Your task to perform on an android device: see sites visited before in the chrome app Image 0: 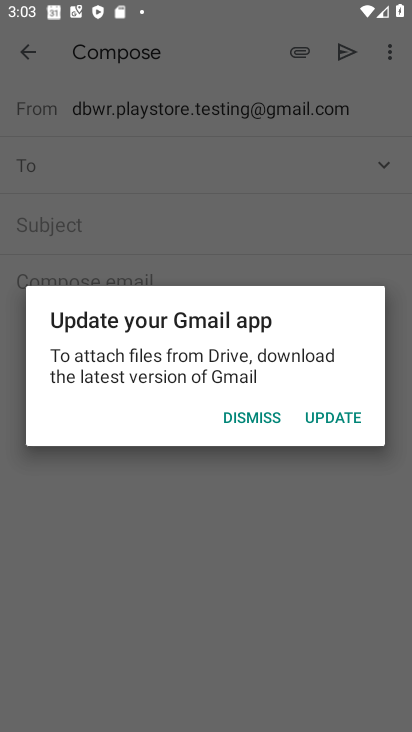
Step 0: press home button
Your task to perform on an android device: see sites visited before in the chrome app Image 1: 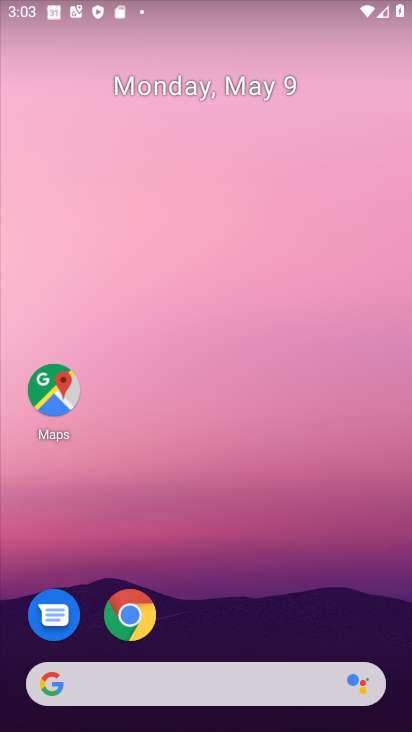
Step 1: drag from (208, 492) to (229, 184)
Your task to perform on an android device: see sites visited before in the chrome app Image 2: 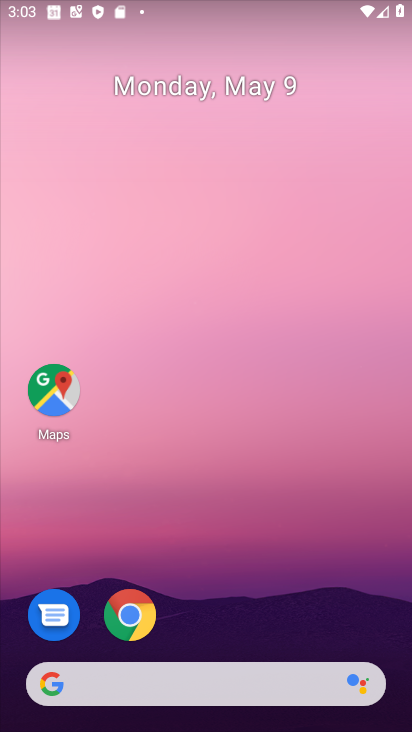
Step 2: drag from (226, 626) to (250, 230)
Your task to perform on an android device: see sites visited before in the chrome app Image 3: 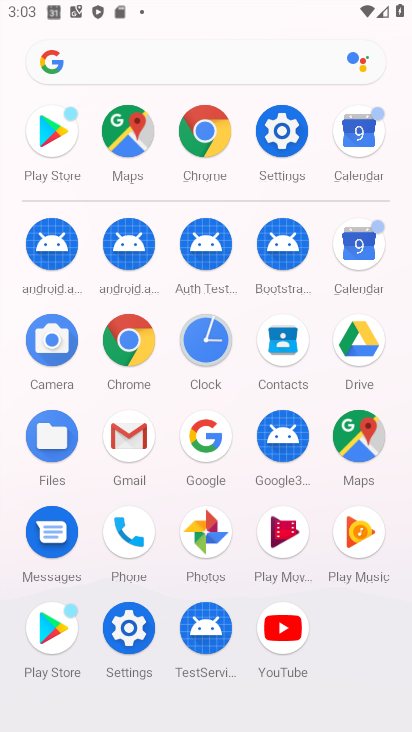
Step 3: click (211, 133)
Your task to perform on an android device: see sites visited before in the chrome app Image 4: 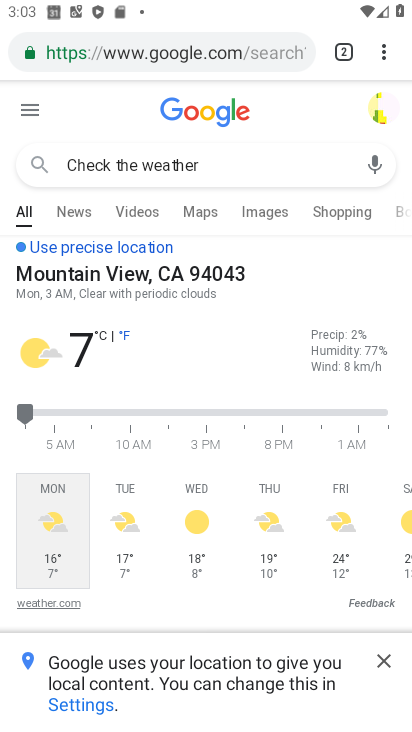
Step 4: click (375, 48)
Your task to perform on an android device: see sites visited before in the chrome app Image 5: 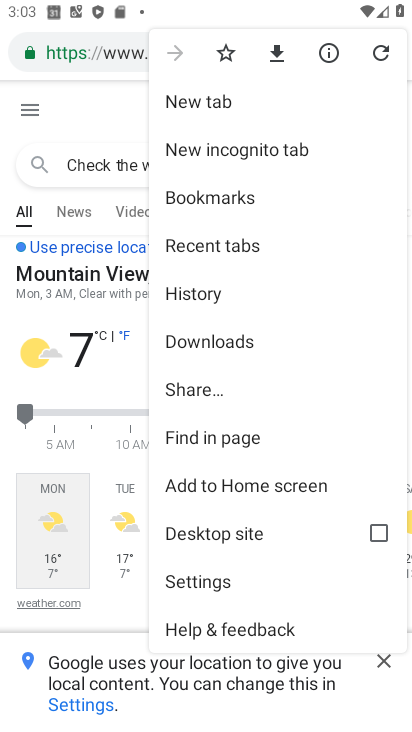
Step 5: click (189, 287)
Your task to perform on an android device: see sites visited before in the chrome app Image 6: 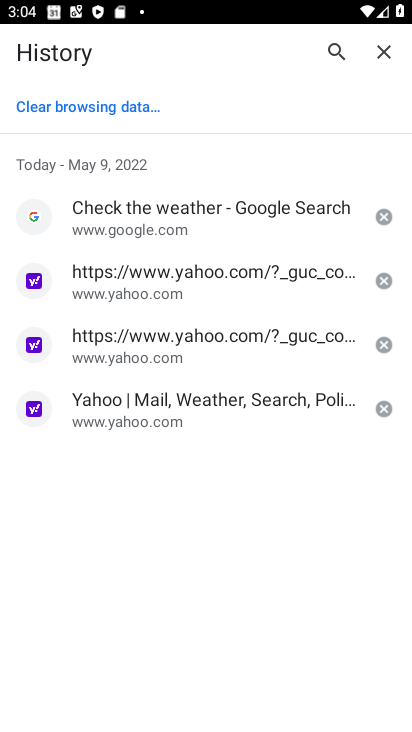
Step 6: task complete